Your task to perform on an android device: change timer sound Image 0: 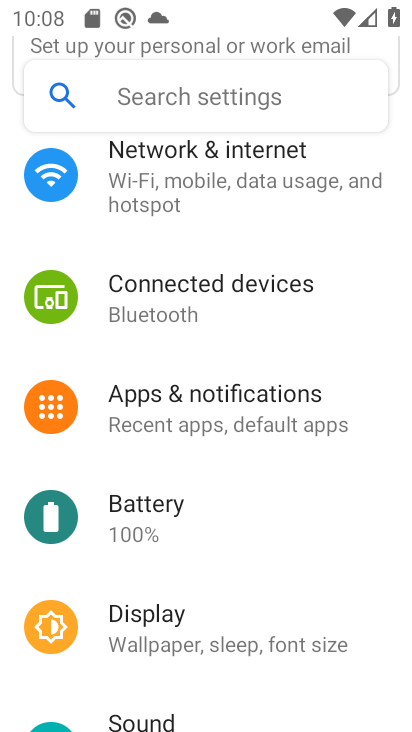
Step 0: press home button
Your task to perform on an android device: change timer sound Image 1: 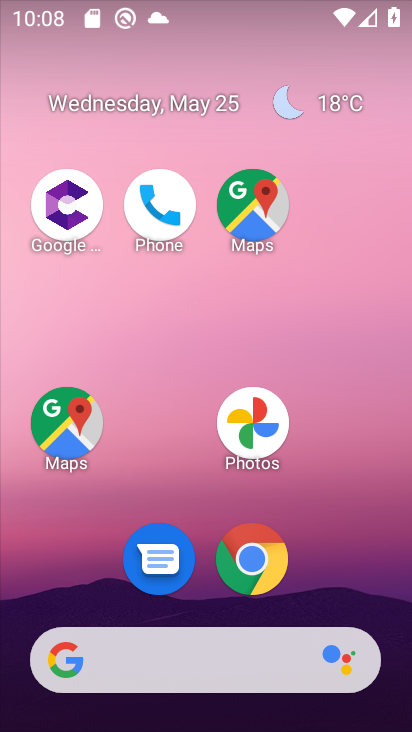
Step 1: drag from (323, 553) to (333, 168)
Your task to perform on an android device: change timer sound Image 2: 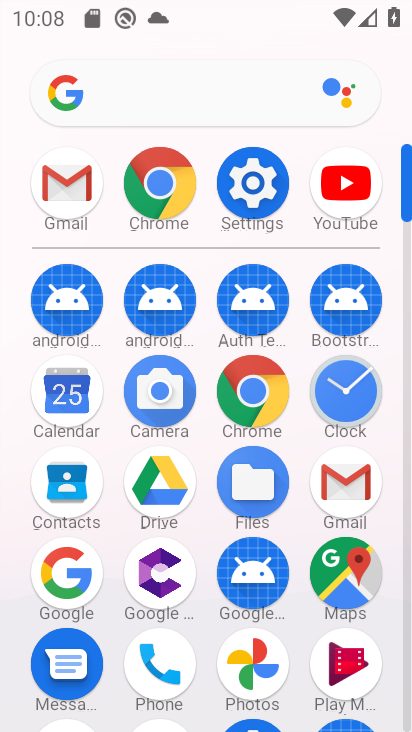
Step 2: click (348, 401)
Your task to perform on an android device: change timer sound Image 3: 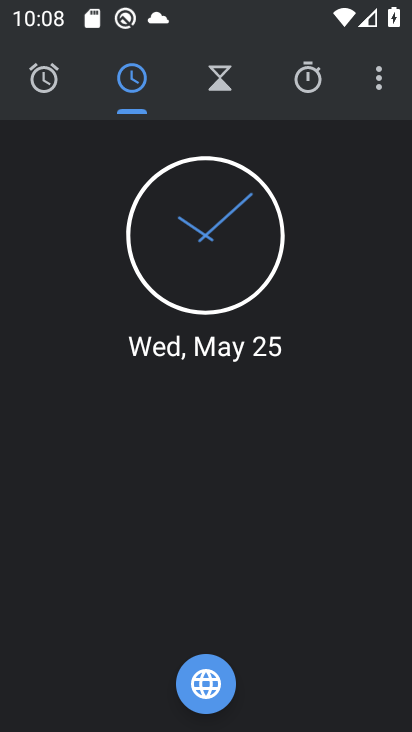
Step 3: click (390, 72)
Your task to perform on an android device: change timer sound Image 4: 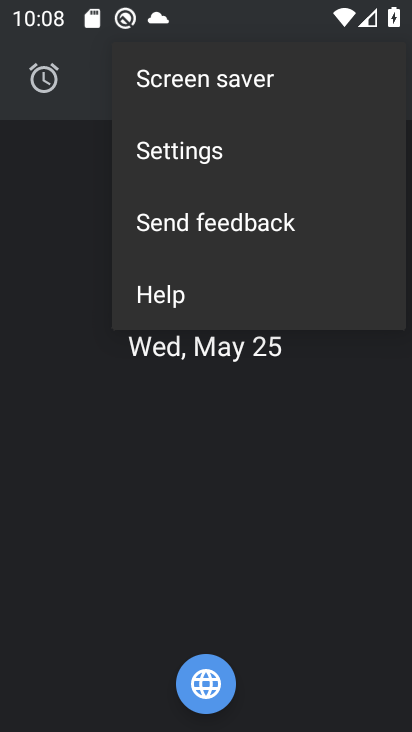
Step 4: click (221, 159)
Your task to perform on an android device: change timer sound Image 5: 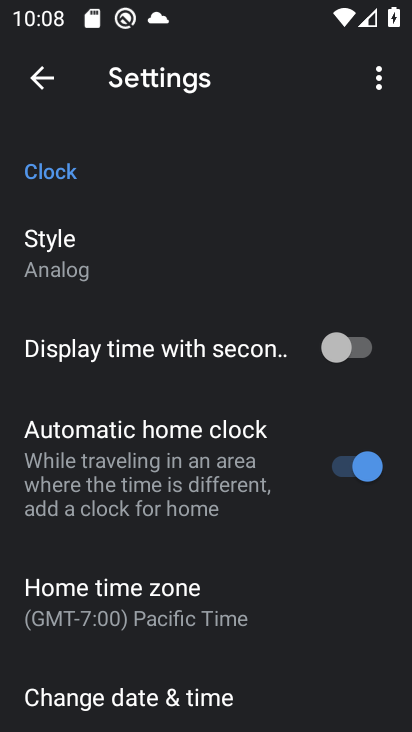
Step 5: drag from (274, 667) to (268, 214)
Your task to perform on an android device: change timer sound Image 6: 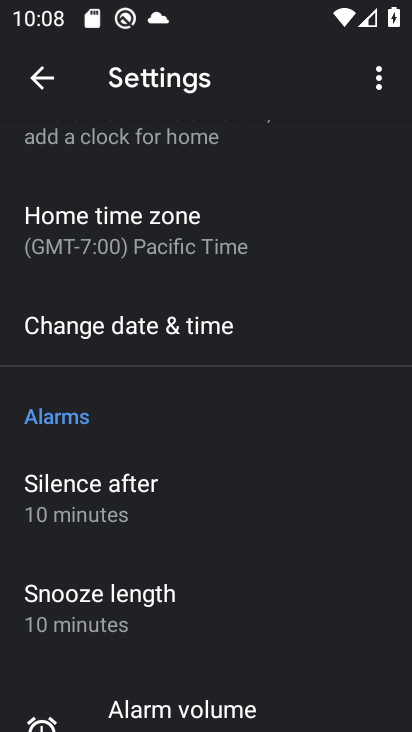
Step 6: drag from (268, 603) to (328, 186)
Your task to perform on an android device: change timer sound Image 7: 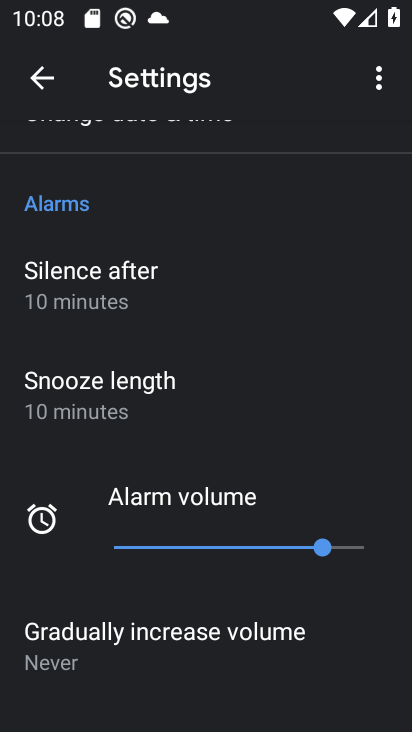
Step 7: drag from (270, 572) to (263, 230)
Your task to perform on an android device: change timer sound Image 8: 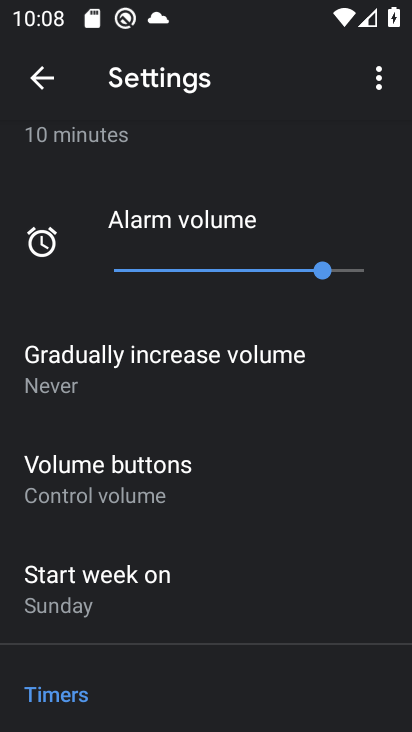
Step 8: drag from (218, 589) to (253, 102)
Your task to perform on an android device: change timer sound Image 9: 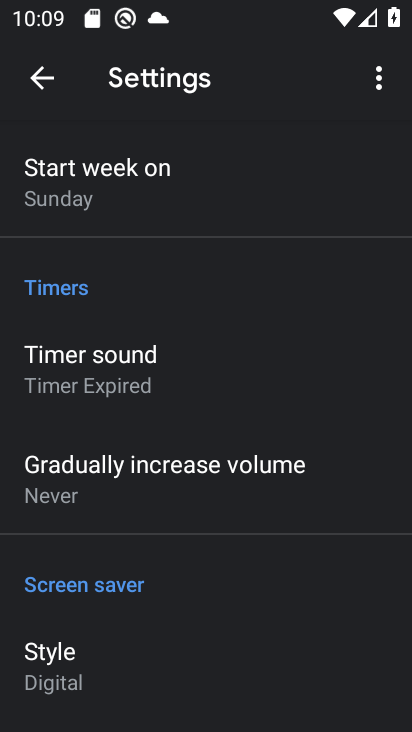
Step 9: click (141, 364)
Your task to perform on an android device: change timer sound Image 10: 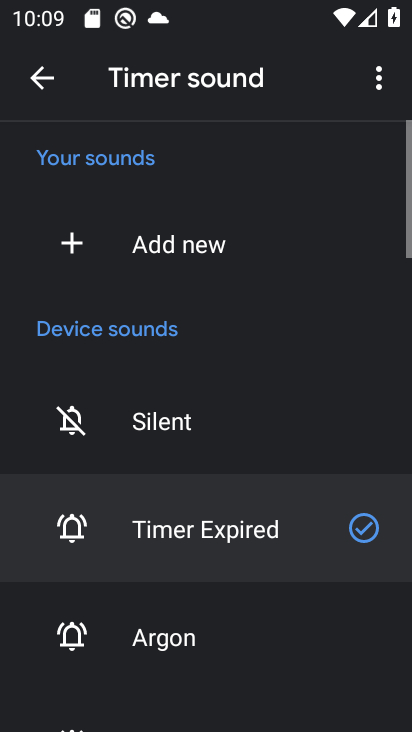
Step 10: click (185, 639)
Your task to perform on an android device: change timer sound Image 11: 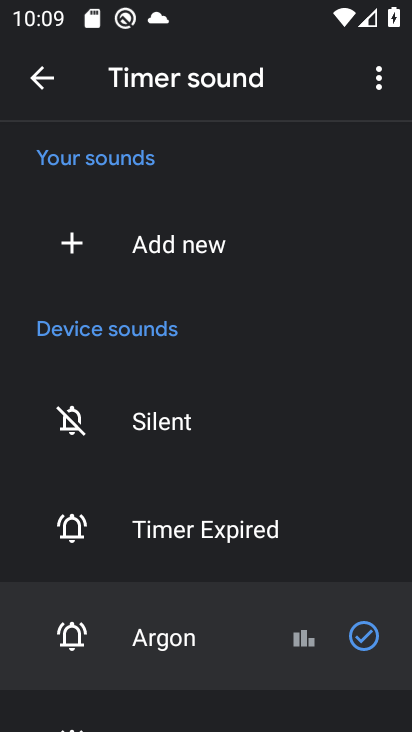
Step 11: task complete